Your task to perform on an android device: Go to Google maps Image 0: 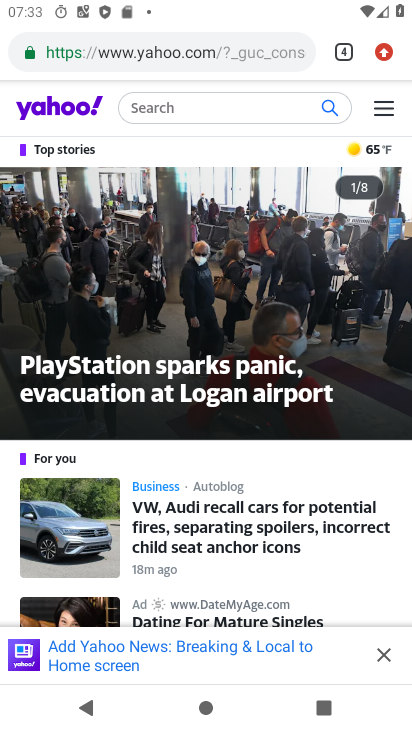
Step 0: press home button
Your task to perform on an android device: Go to Google maps Image 1: 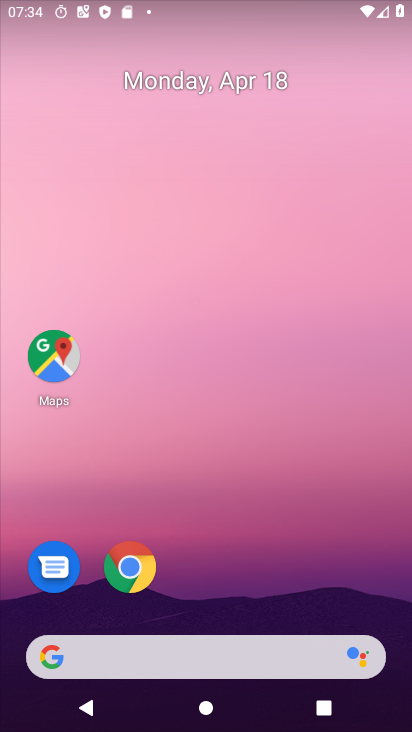
Step 1: drag from (347, 416) to (330, 96)
Your task to perform on an android device: Go to Google maps Image 2: 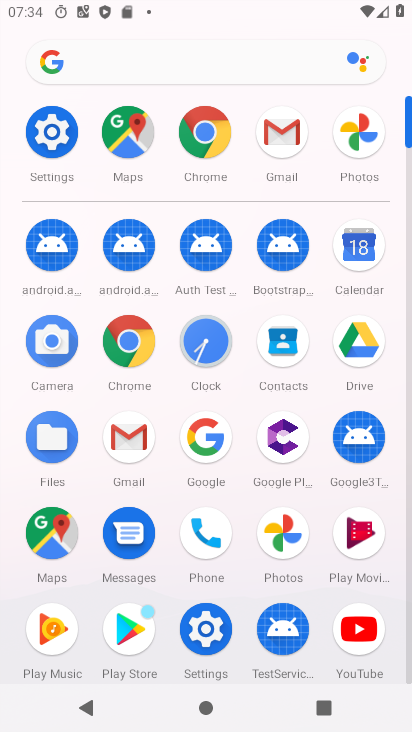
Step 2: click (120, 143)
Your task to perform on an android device: Go to Google maps Image 3: 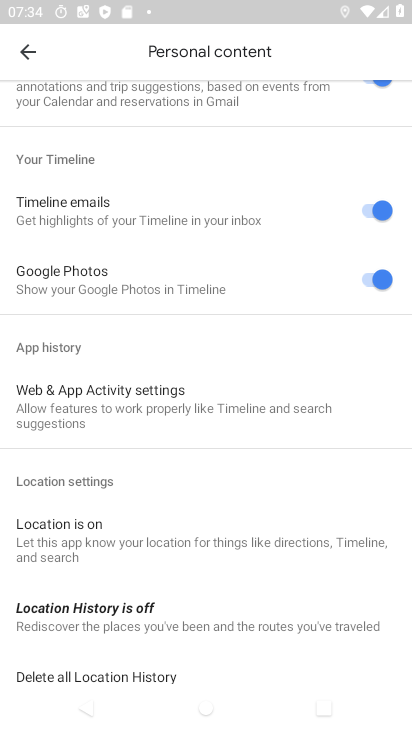
Step 3: click (35, 49)
Your task to perform on an android device: Go to Google maps Image 4: 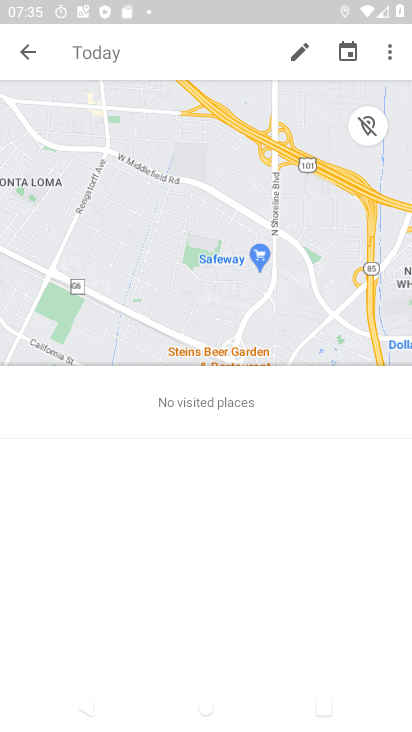
Step 4: task complete